Your task to perform on an android device: Open privacy settings Image 0: 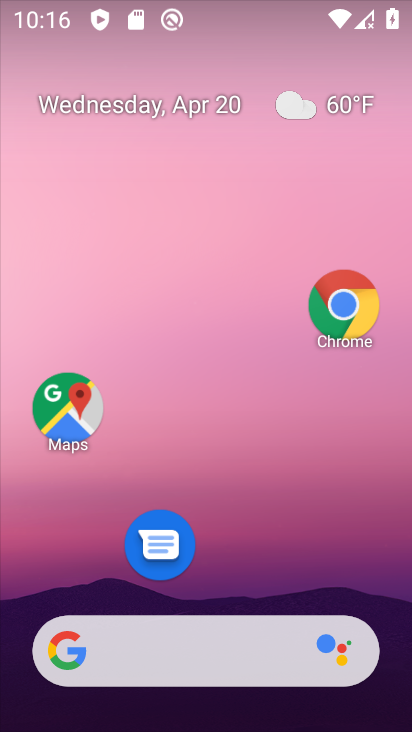
Step 0: drag from (240, 608) to (243, 117)
Your task to perform on an android device: Open privacy settings Image 1: 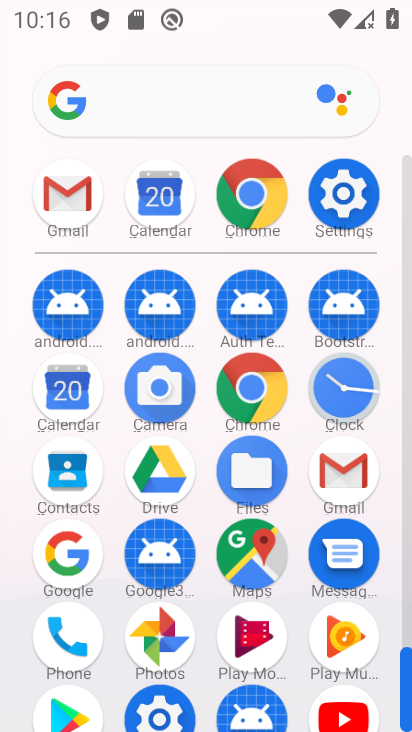
Step 1: click (346, 224)
Your task to perform on an android device: Open privacy settings Image 2: 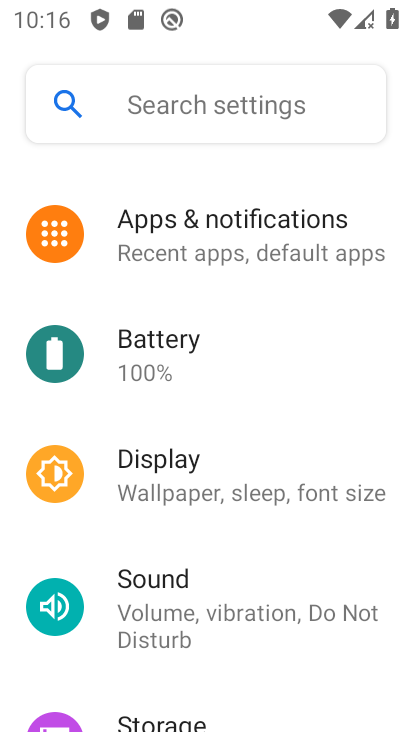
Step 2: drag from (248, 552) to (270, 96)
Your task to perform on an android device: Open privacy settings Image 3: 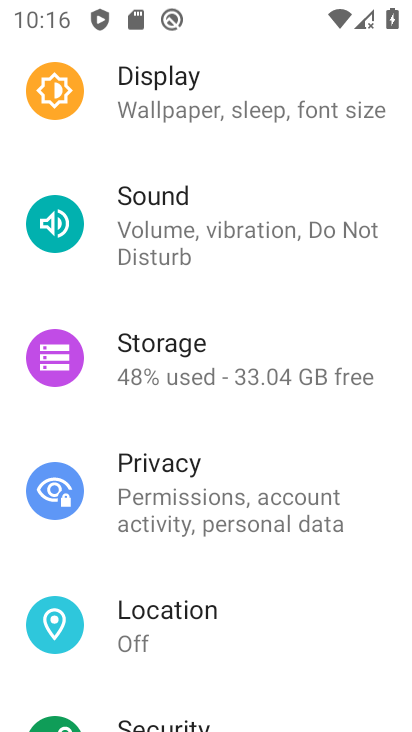
Step 3: drag from (190, 484) to (216, 229)
Your task to perform on an android device: Open privacy settings Image 4: 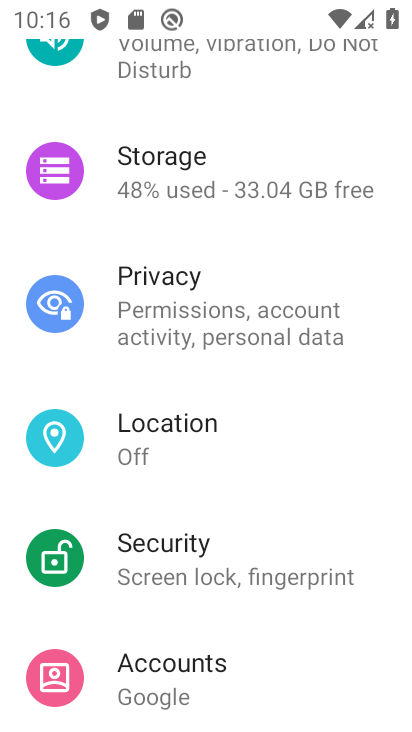
Step 4: drag from (222, 415) to (224, 264)
Your task to perform on an android device: Open privacy settings Image 5: 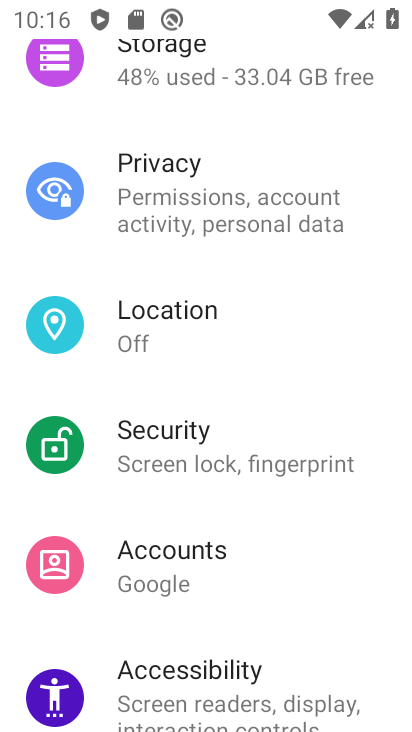
Step 5: drag from (204, 502) to (218, 650)
Your task to perform on an android device: Open privacy settings Image 6: 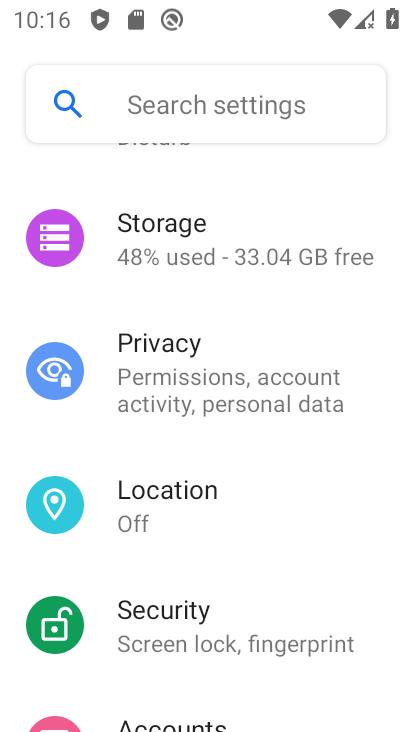
Step 6: click (203, 369)
Your task to perform on an android device: Open privacy settings Image 7: 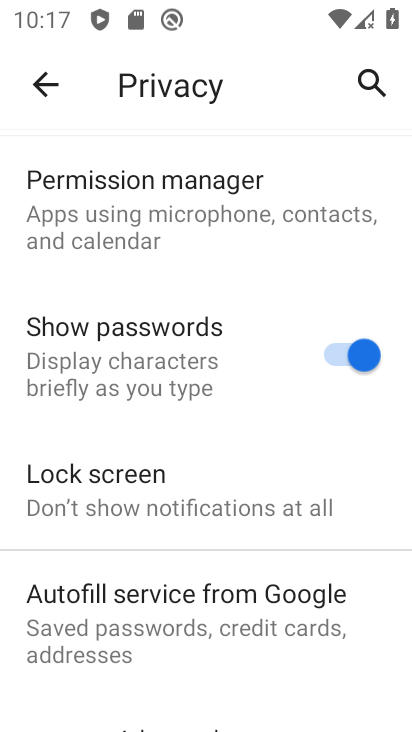
Step 7: task complete